Your task to perform on an android device: Show me popular games on the Play Store Image 0: 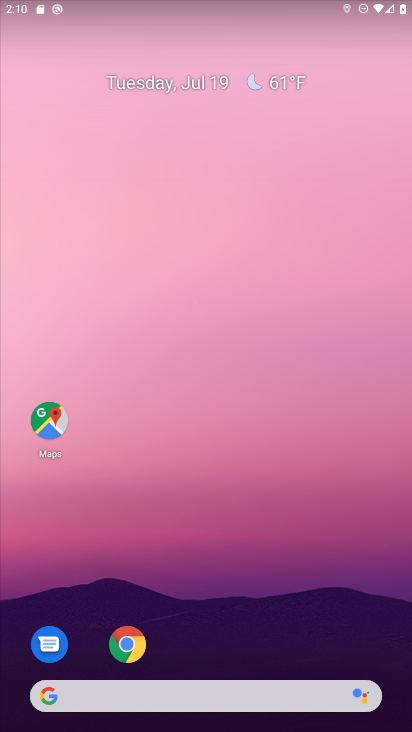
Step 0: drag from (184, 674) to (148, 161)
Your task to perform on an android device: Show me popular games on the Play Store Image 1: 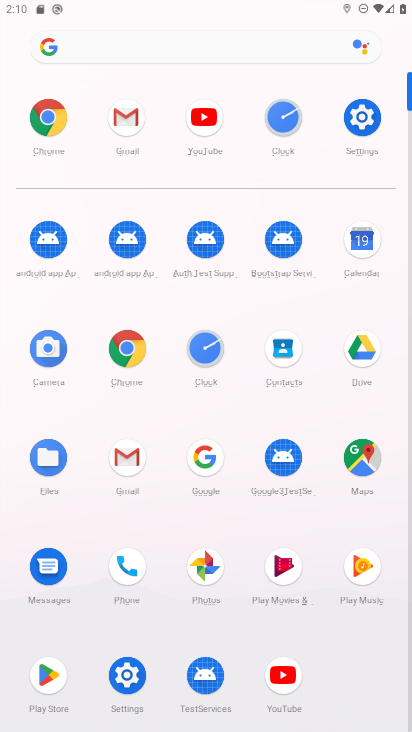
Step 1: click (32, 681)
Your task to perform on an android device: Show me popular games on the Play Store Image 2: 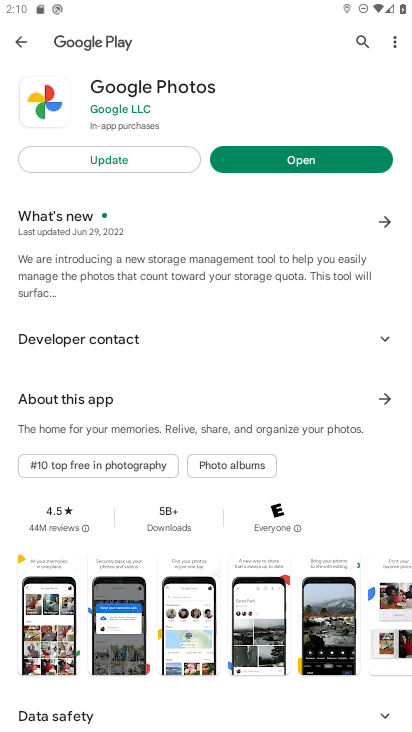
Step 2: click (17, 41)
Your task to perform on an android device: Show me popular games on the Play Store Image 3: 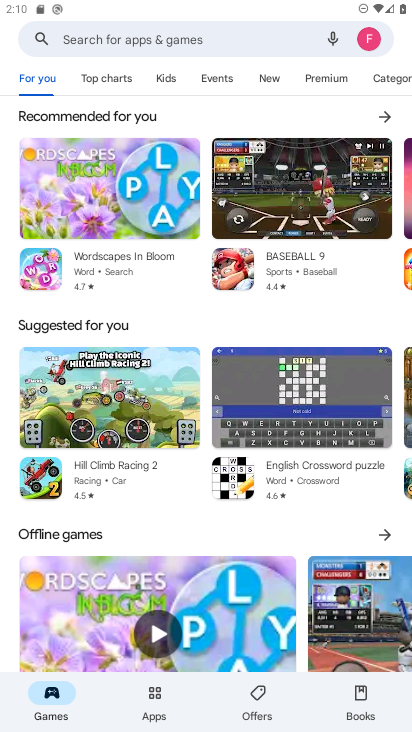
Step 3: task complete